Your task to perform on an android device: turn on location history Image 0: 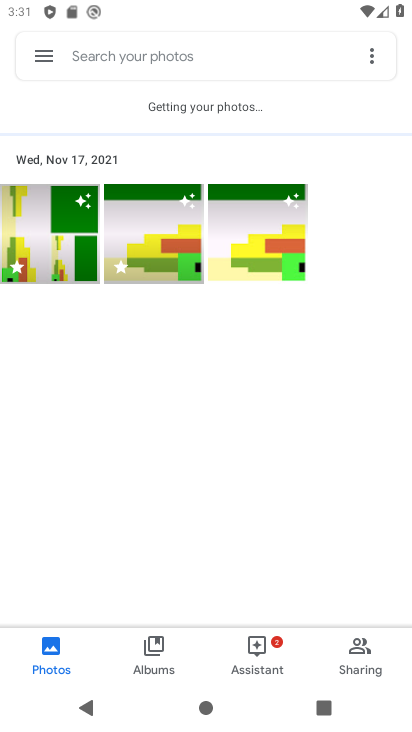
Step 0: press home button
Your task to perform on an android device: turn on location history Image 1: 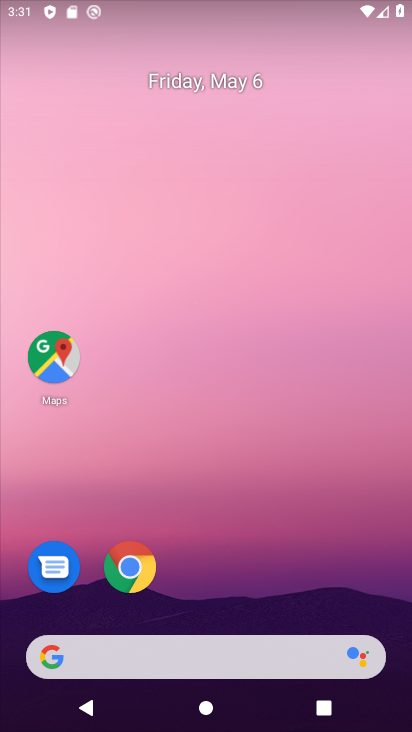
Step 1: drag from (178, 537) to (203, 82)
Your task to perform on an android device: turn on location history Image 2: 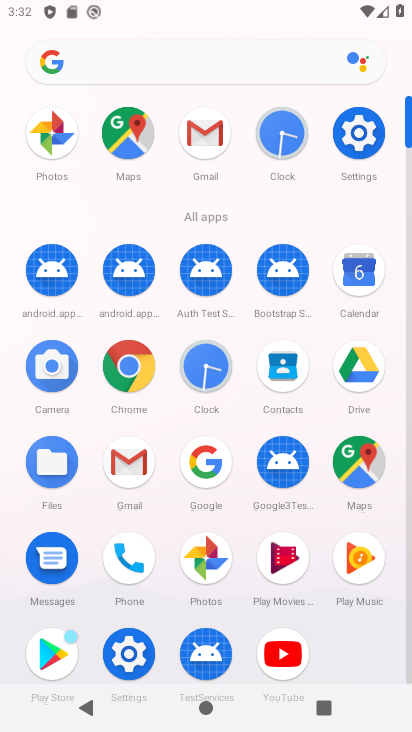
Step 2: click (357, 135)
Your task to perform on an android device: turn on location history Image 3: 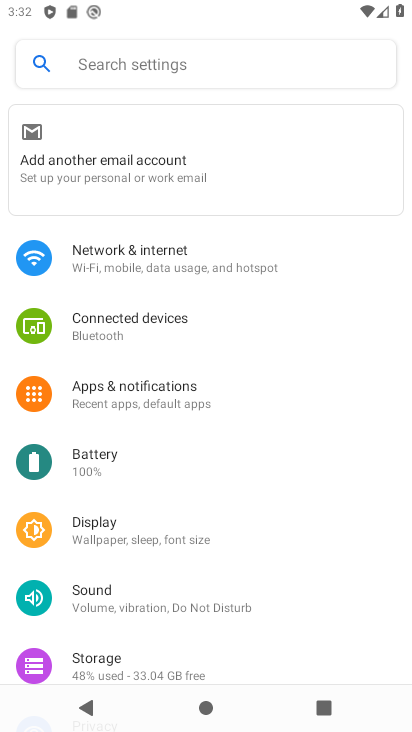
Step 3: drag from (127, 611) to (137, 327)
Your task to perform on an android device: turn on location history Image 4: 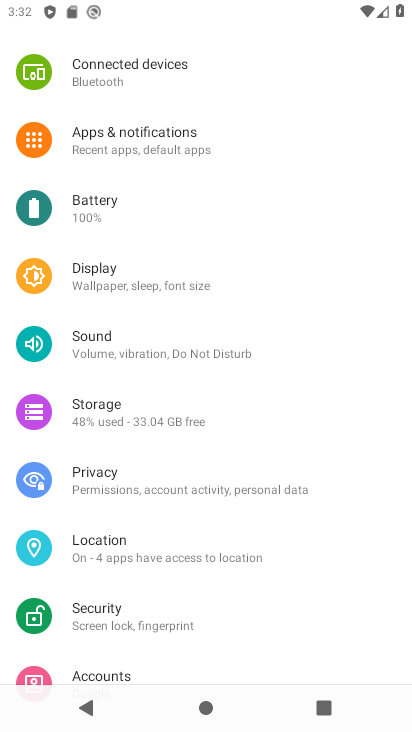
Step 4: drag from (163, 588) to (132, 377)
Your task to perform on an android device: turn on location history Image 5: 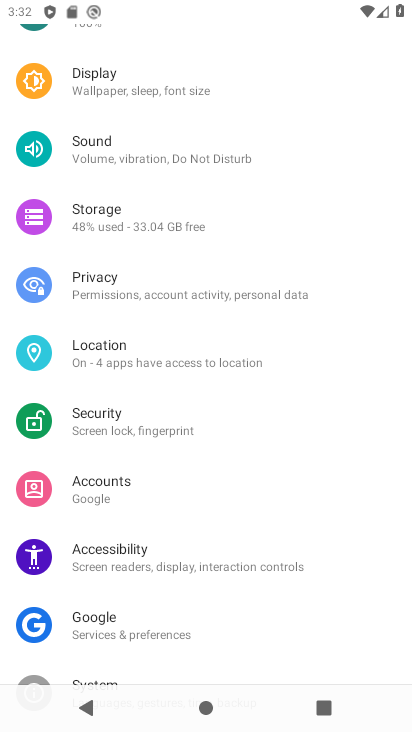
Step 5: click (168, 352)
Your task to perform on an android device: turn on location history Image 6: 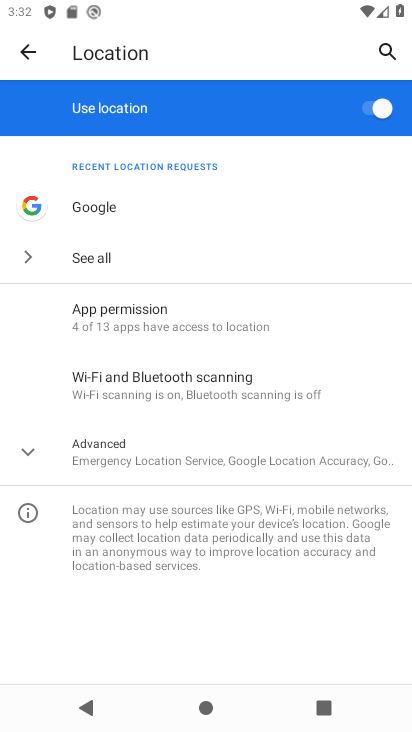
Step 6: click (22, 453)
Your task to perform on an android device: turn on location history Image 7: 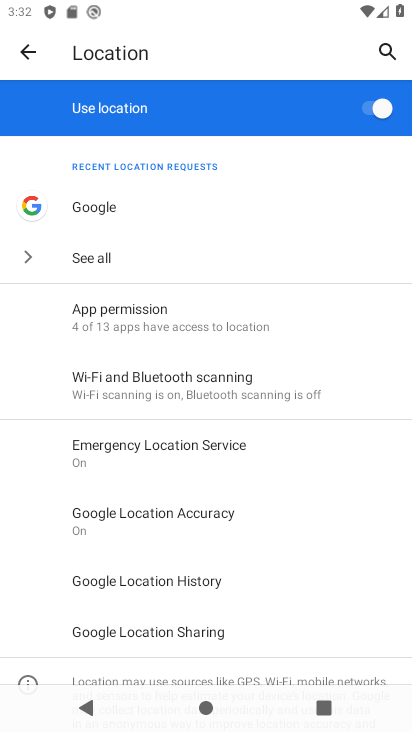
Step 7: click (154, 589)
Your task to perform on an android device: turn on location history Image 8: 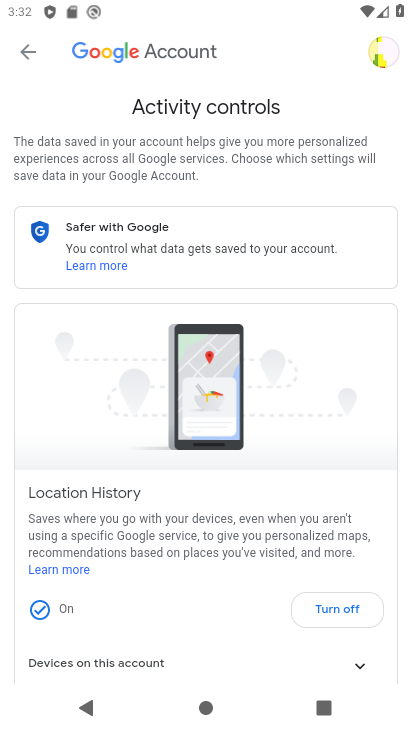
Step 8: task complete